Your task to perform on an android device: change keyboard looks Image 0: 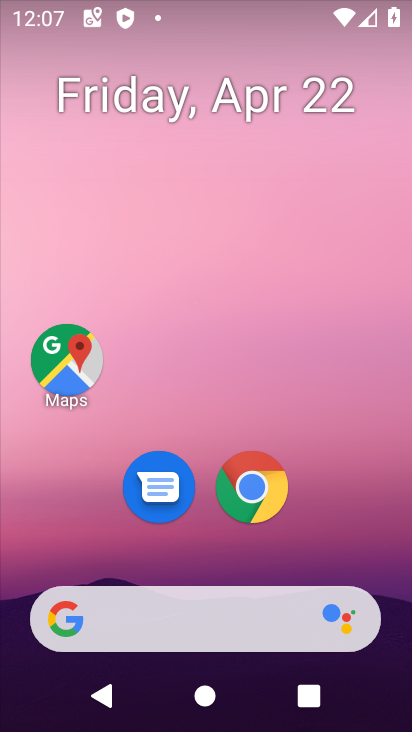
Step 0: drag from (363, 512) to (351, 120)
Your task to perform on an android device: change keyboard looks Image 1: 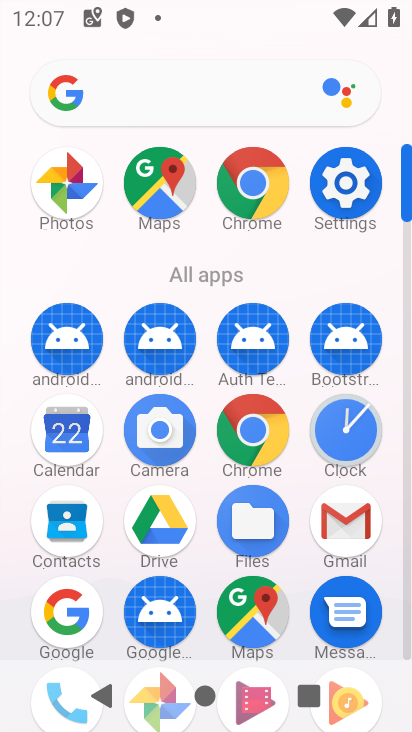
Step 1: click (355, 184)
Your task to perform on an android device: change keyboard looks Image 2: 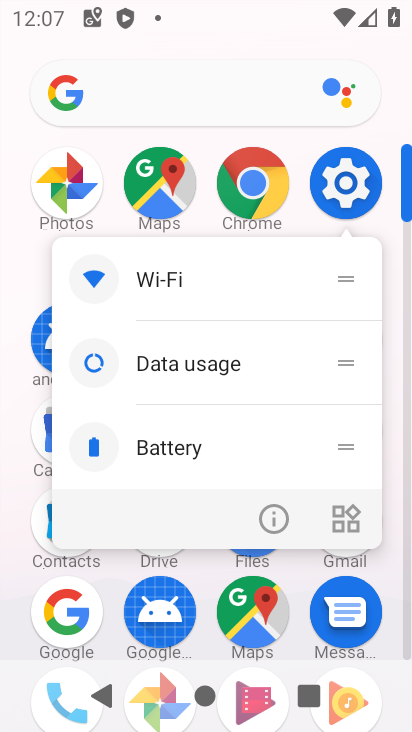
Step 2: click (355, 179)
Your task to perform on an android device: change keyboard looks Image 3: 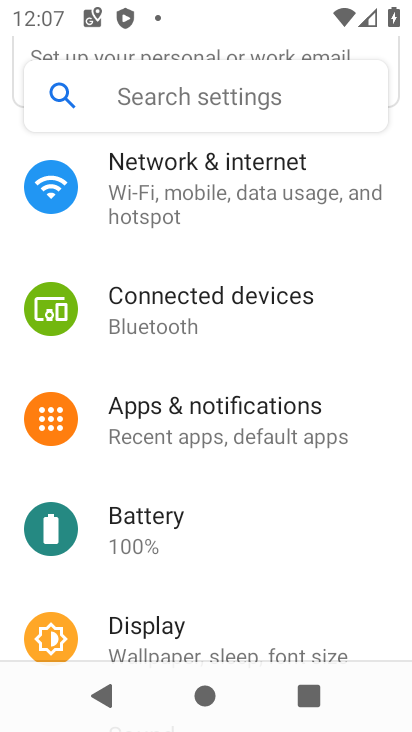
Step 3: drag from (277, 548) to (288, 173)
Your task to perform on an android device: change keyboard looks Image 4: 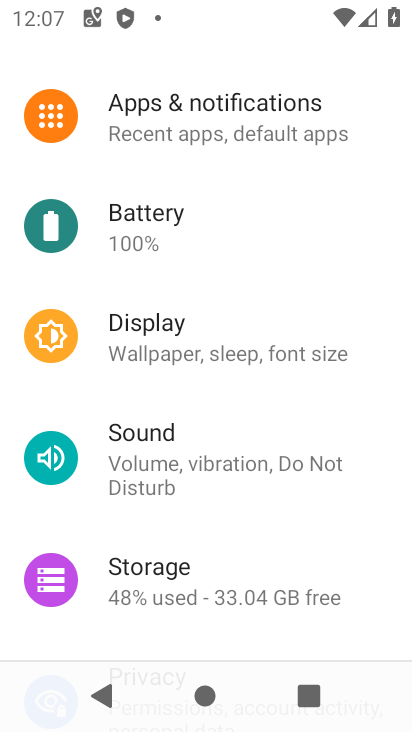
Step 4: drag from (233, 497) to (255, 168)
Your task to perform on an android device: change keyboard looks Image 5: 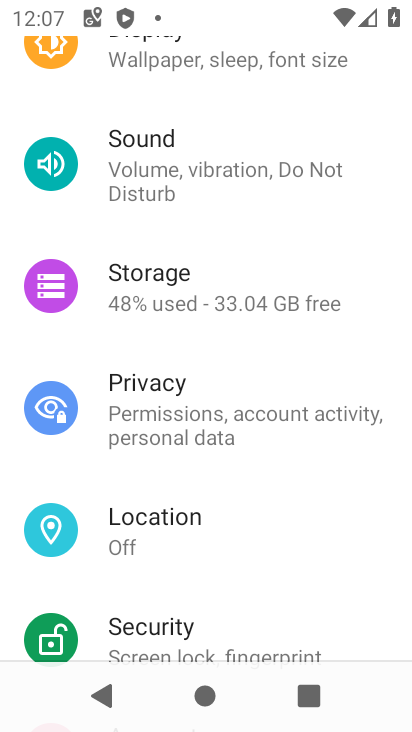
Step 5: drag from (257, 558) to (251, 165)
Your task to perform on an android device: change keyboard looks Image 6: 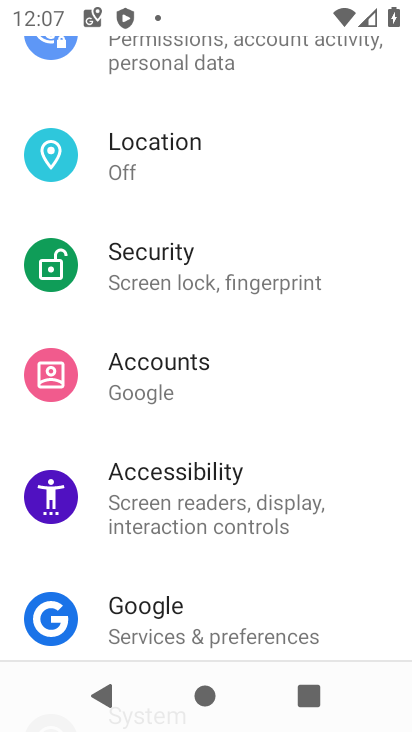
Step 6: drag from (219, 564) to (246, 181)
Your task to perform on an android device: change keyboard looks Image 7: 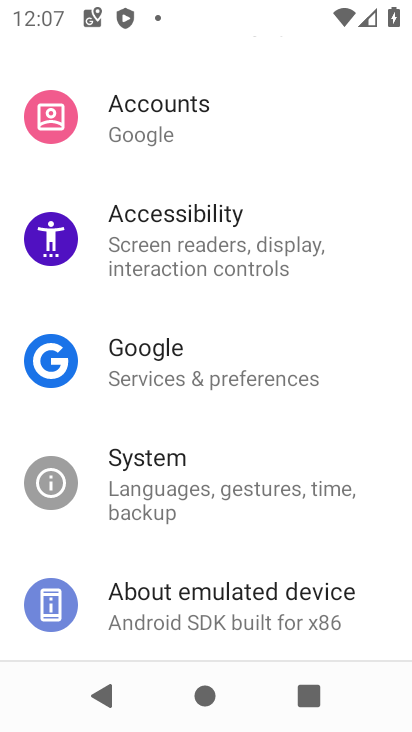
Step 7: click (236, 490)
Your task to perform on an android device: change keyboard looks Image 8: 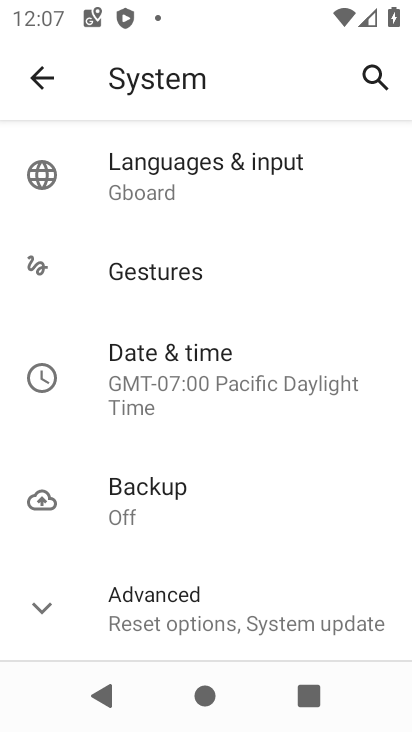
Step 8: click (225, 178)
Your task to perform on an android device: change keyboard looks Image 9: 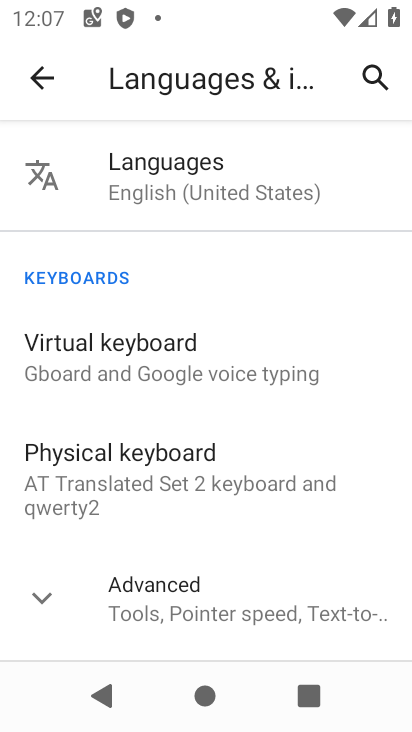
Step 9: click (207, 346)
Your task to perform on an android device: change keyboard looks Image 10: 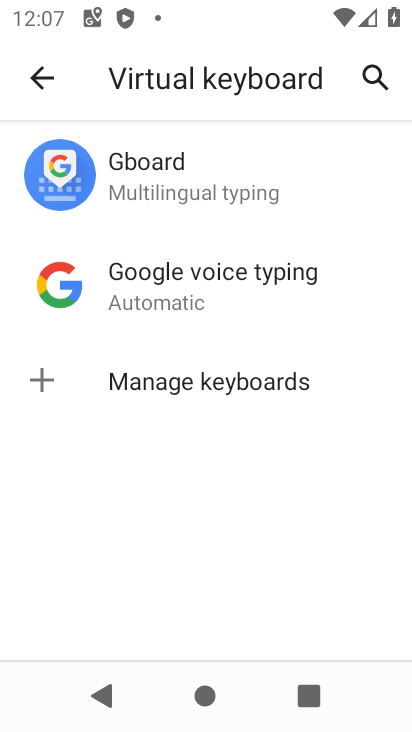
Step 10: click (190, 185)
Your task to perform on an android device: change keyboard looks Image 11: 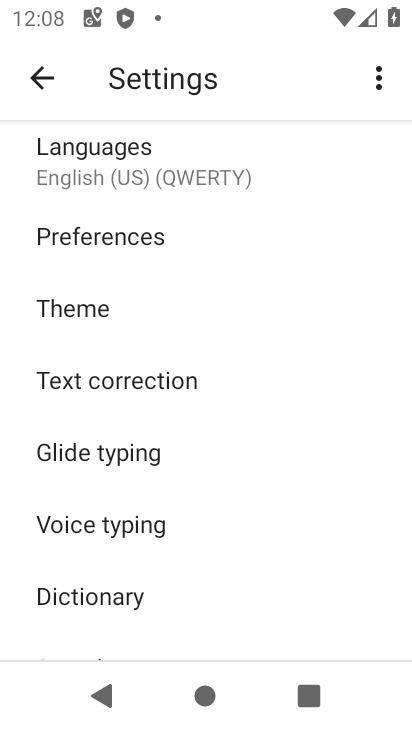
Step 11: click (131, 310)
Your task to perform on an android device: change keyboard looks Image 12: 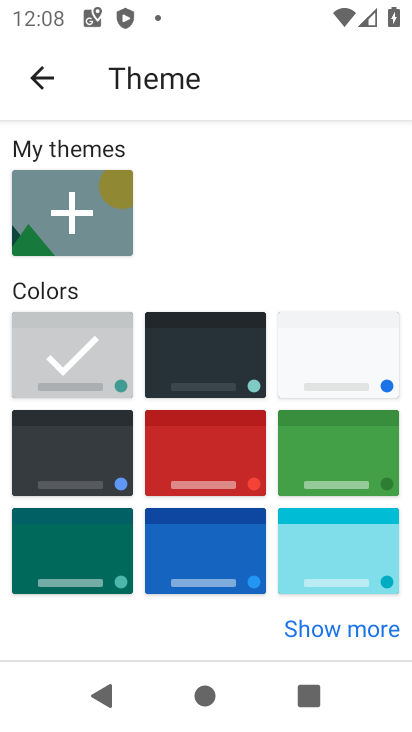
Step 12: click (200, 356)
Your task to perform on an android device: change keyboard looks Image 13: 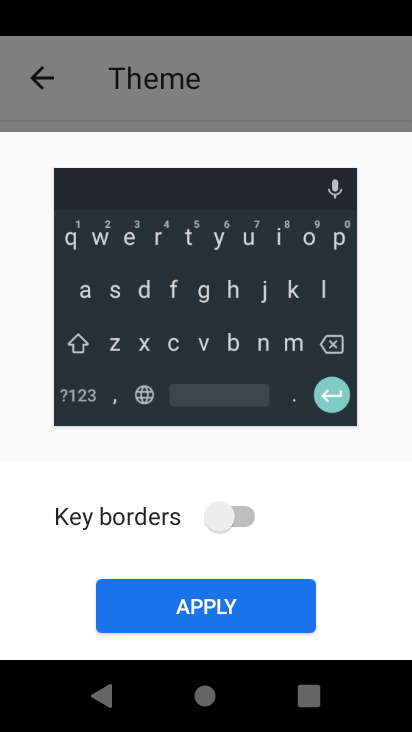
Step 13: click (242, 506)
Your task to perform on an android device: change keyboard looks Image 14: 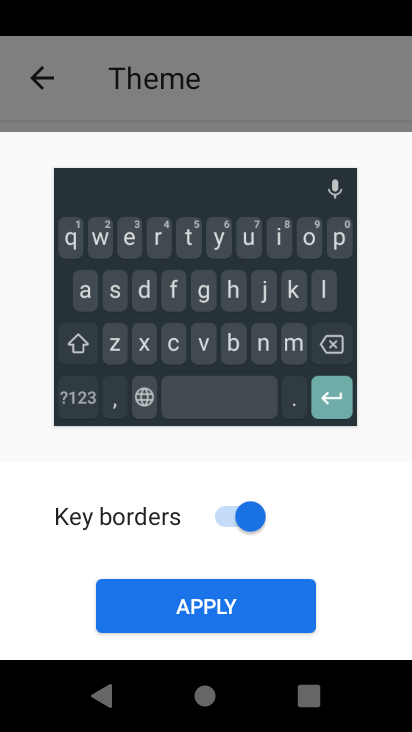
Step 14: click (254, 601)
Your task to perform on an android device: change keyboard looks Image 15: 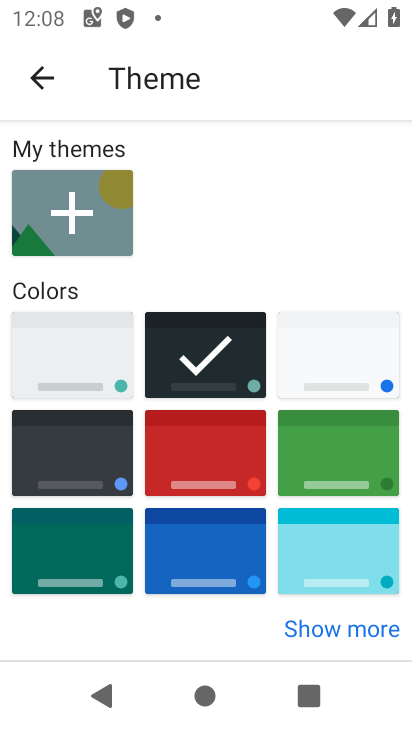
Step 15: task complete